Your task to perform on an android device: Search for Mexican restaurants on Maps Image 0: 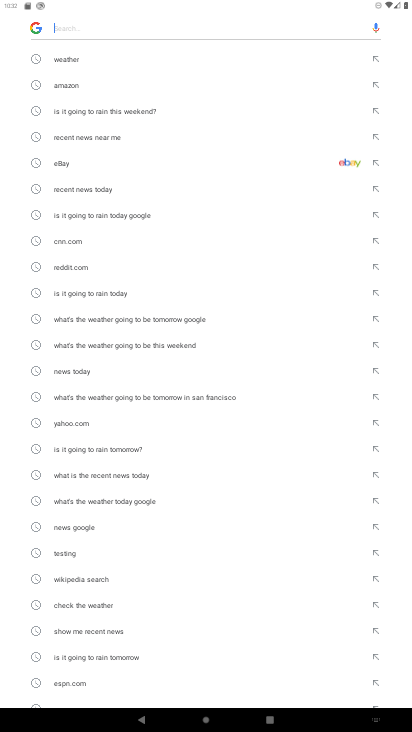
Step 0: press home button
Your task to perform on an android device: Search for Mexican restaurants on Maps Image 1: 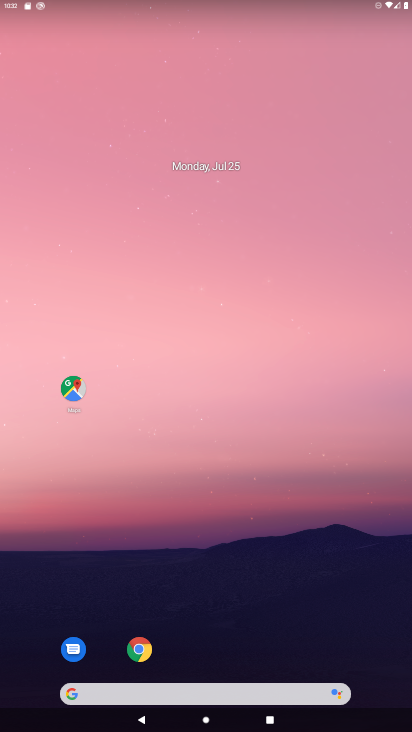
Step 1: click (74, 387)
Your task to perform on an android device: Search for Mexican restaurants on Maps Image 2: 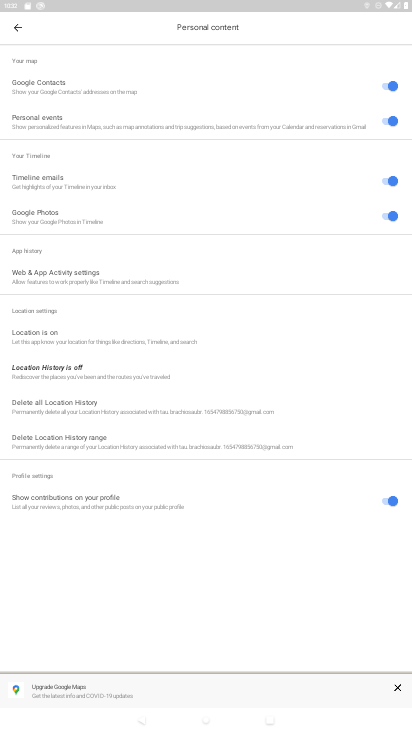
Step 2: press back button
Your task to perform on an android device: Search for Mexican restaurants on Maps Image 3: 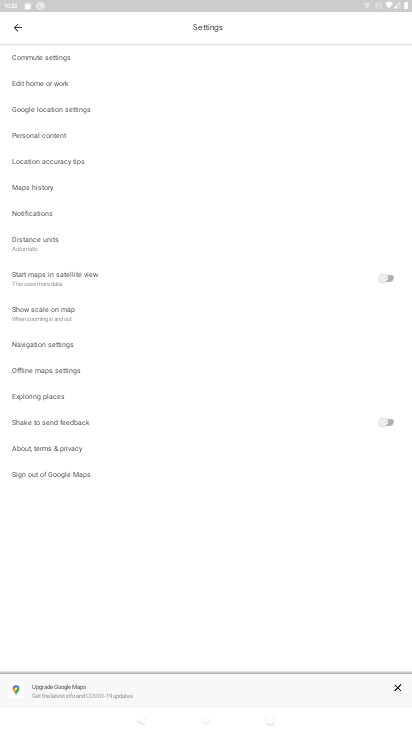
Step 3: press back button
Your task to perform on an android device: Search for Mexican restaurants on Maps Image 4: 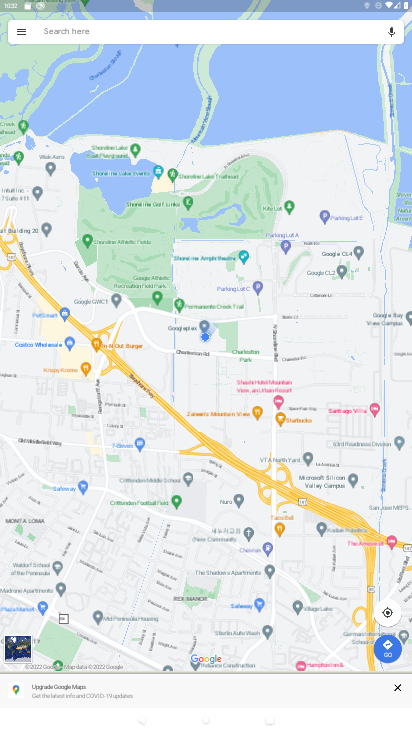
Step 4: click (119, 32)
Your task to perform on an android device: Search for Mexican restaurants on Maps Image 5: 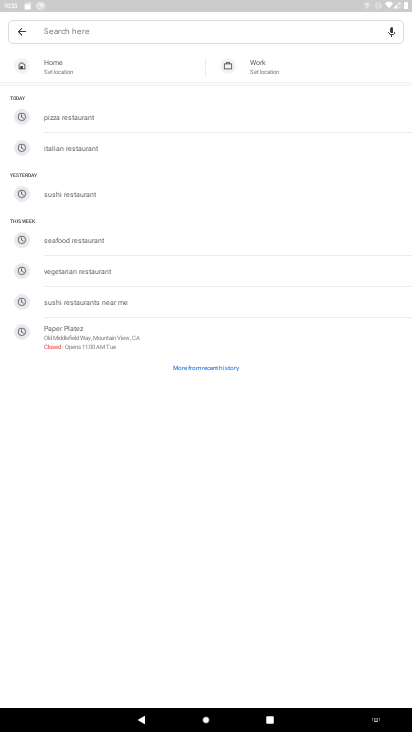
Step 5: type "mexican restaurants"
Your task to perform on an android device: Search for Mexican restaurants on Maps Image 6: 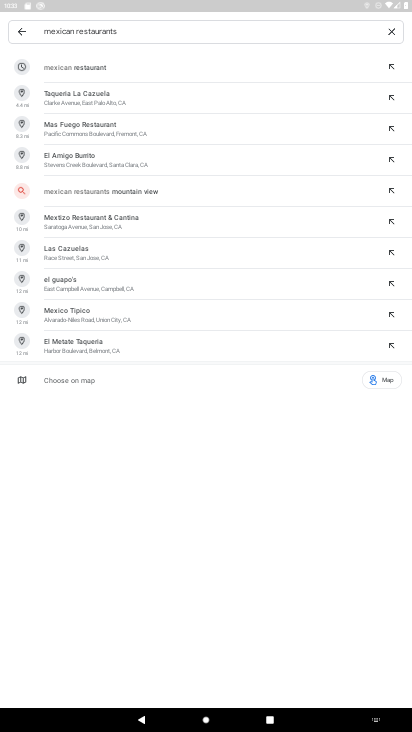
Step 6: click (65, 62)
Your task to perform on an android device: Search for Mexican restaurants on Maps Image 7: 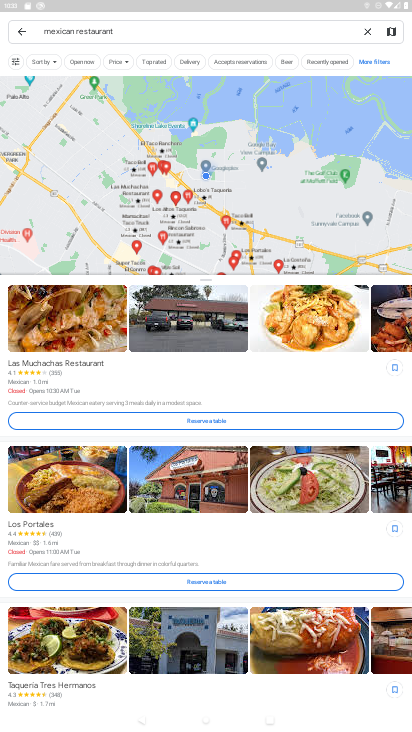
Step 7: task complete